Your task to perform on an android device: Add "razer naga" to the cart on costco.com Image 0: 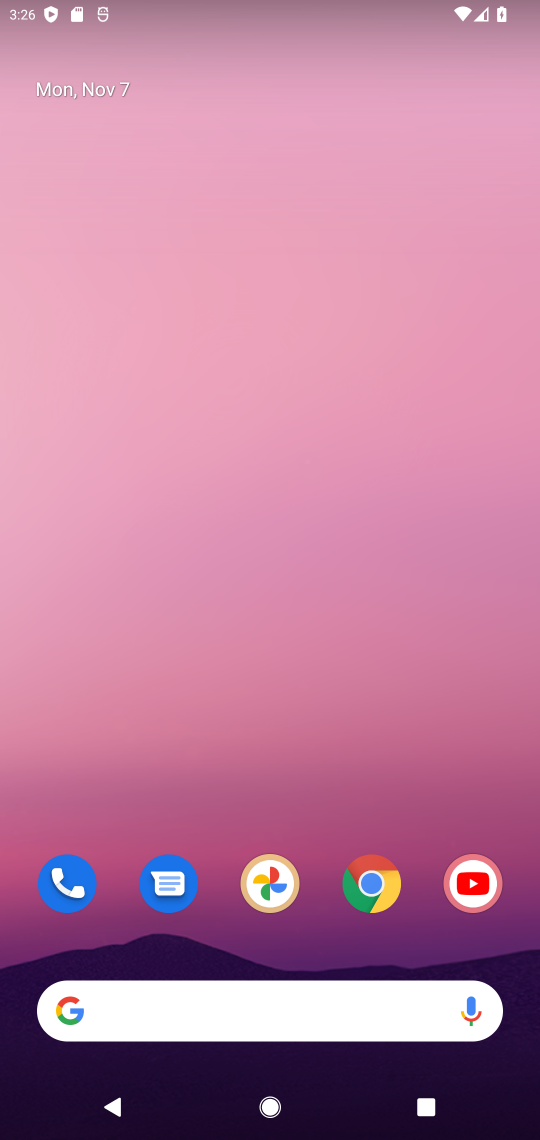
Step 0: click (368, 900)
Your task to perform on an android device: Add "razer naga" to the cart on costco.com Image 1: 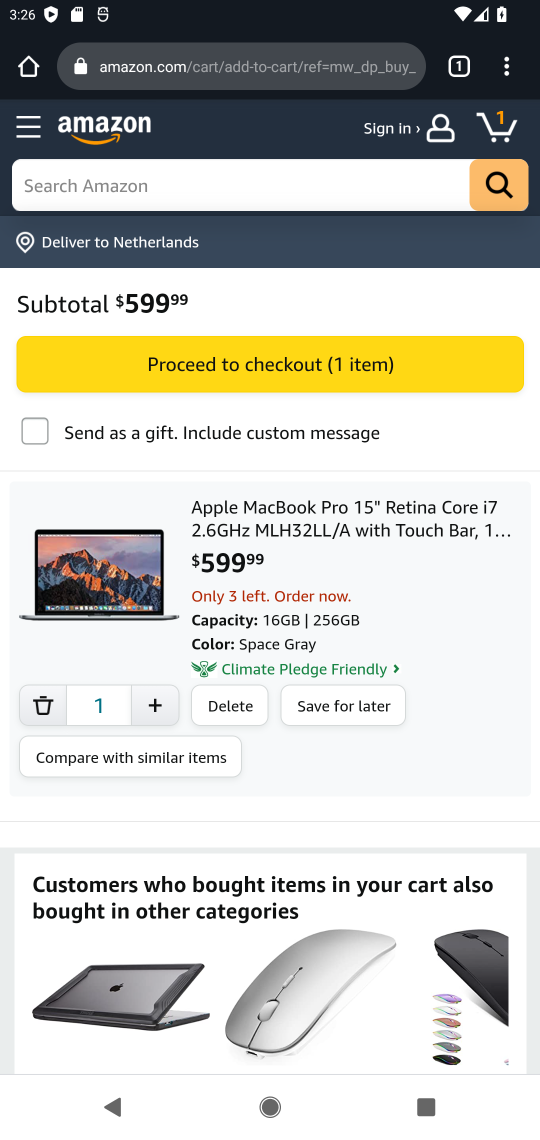
Step 1: click (269, 60)
Your task to perform on an android device: Add "razer naga" to the cart on costco.com Image 2: 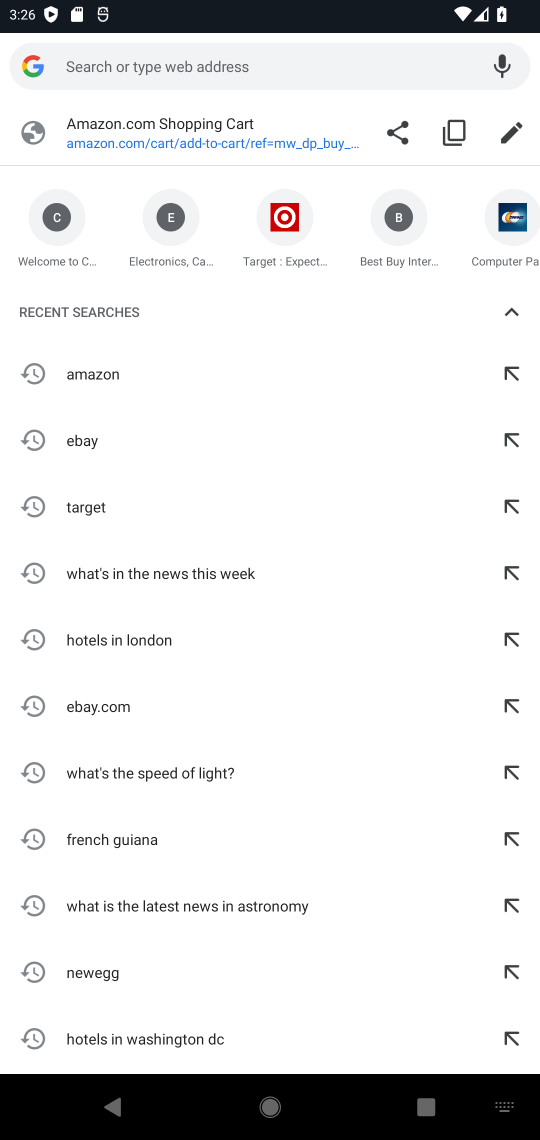
Step 2: drag from (144, 973) to (253, 797)
Your task to perform on an android device: Add "razer naga" to the cart on costco.com Image 3: 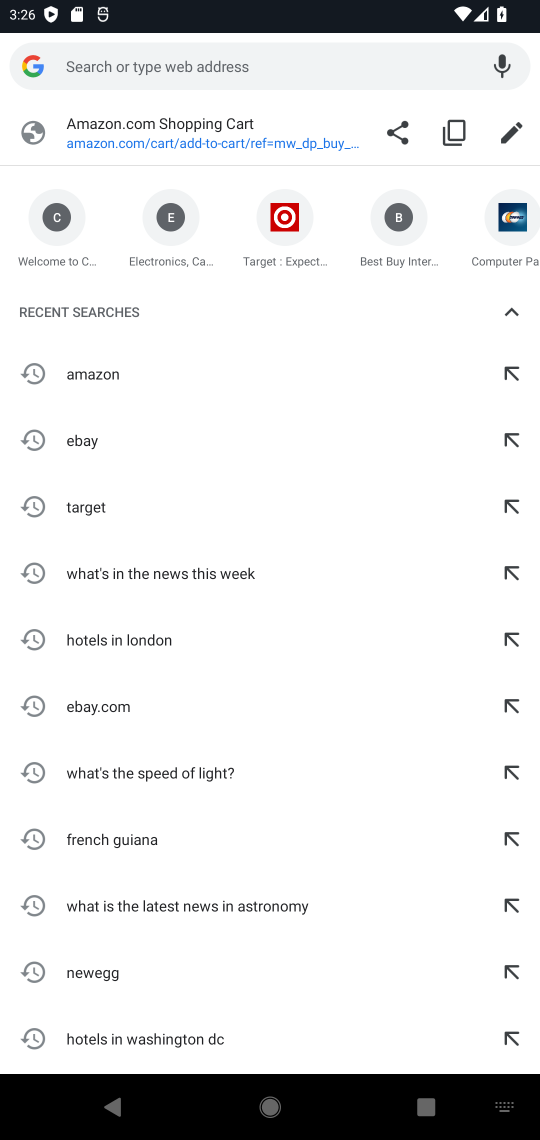
Step 3: click (186, 57)
Your task to perform on an android device: Add "razer naga" to the cart on costco.com Image 4: 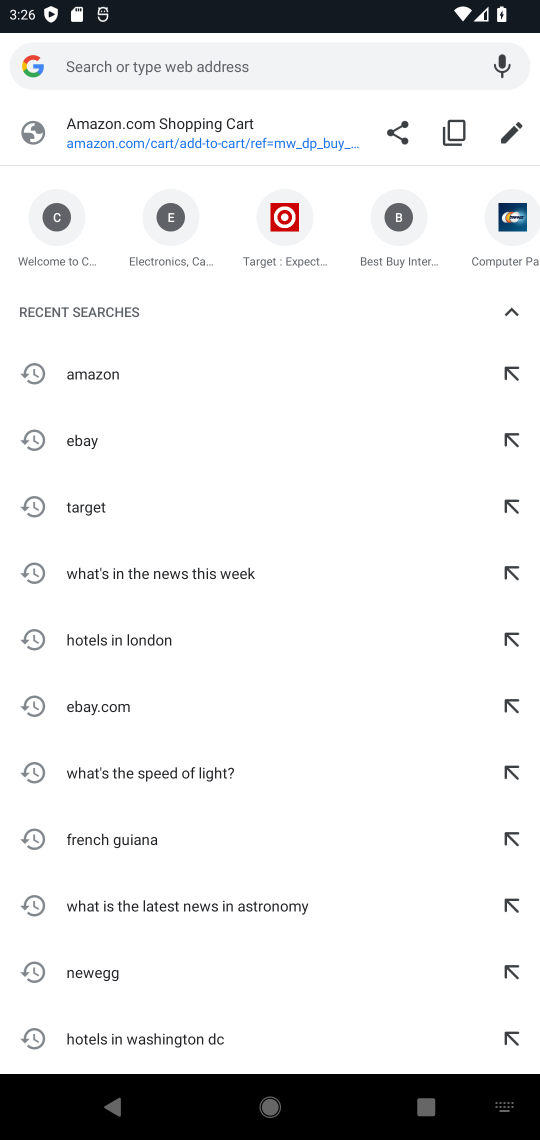
Step 4: type " costco"
Your task to perform on an android device: Add "razer naga" to the cart on costco.com Image 5: 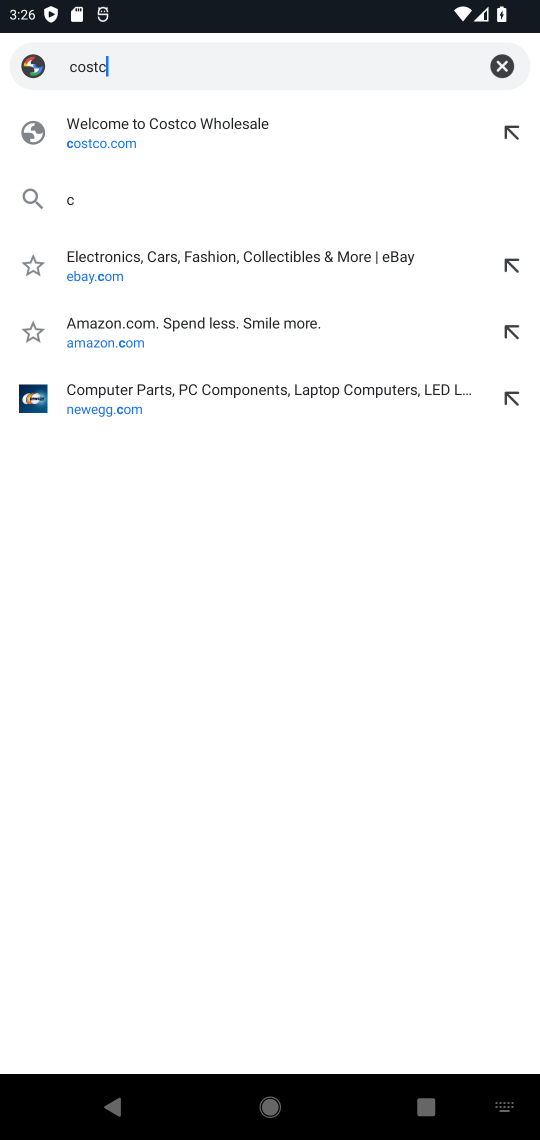
Step 5: press enter
Your task to perform on an android device: Add "razer naga" to the cart on costco.com Image 6: 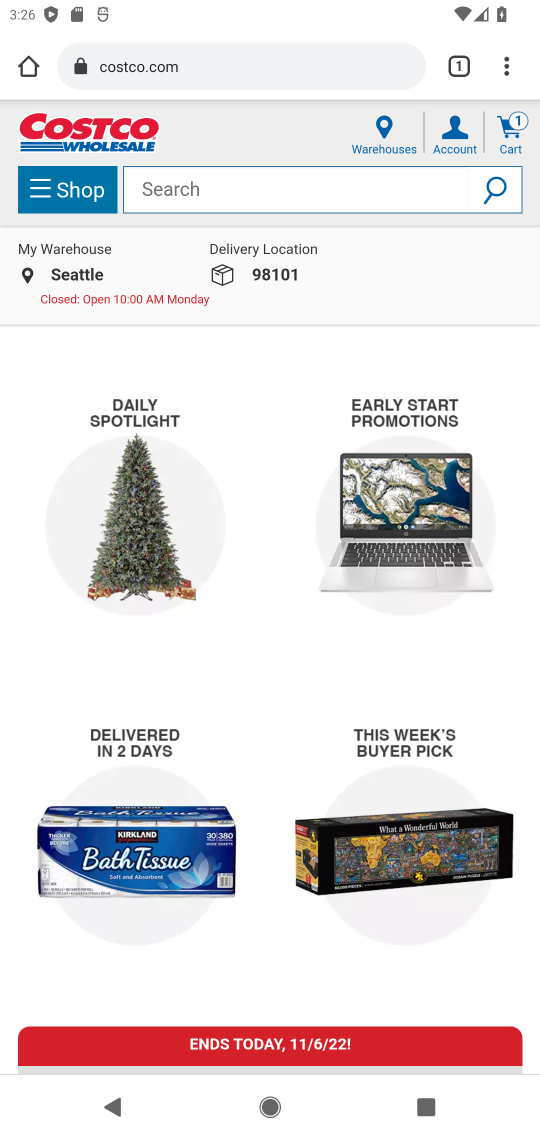
Step 6: click (233, 188)
Your task to perform on an android device: Add "razer naga" to the cart on costco.com Image 7: 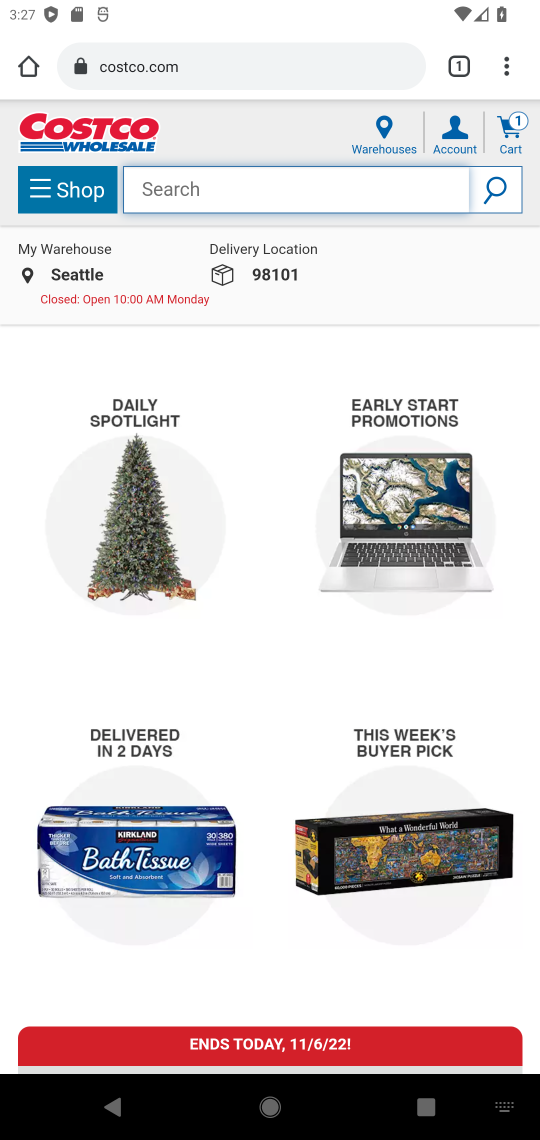
Step 7: type "razer naga"
Your task to perform on an android device: Add "razer naga" to the cart on costco.com Image 8: 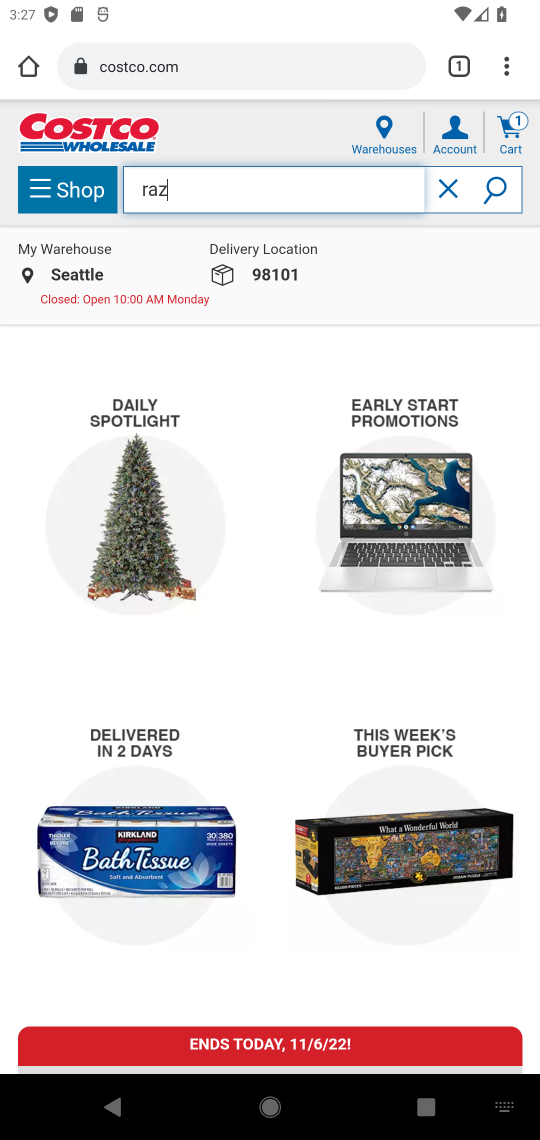
Step 8: press enter
Your task to perform on an android device: Add "razer naga" to the cart on costco.com Image 9: 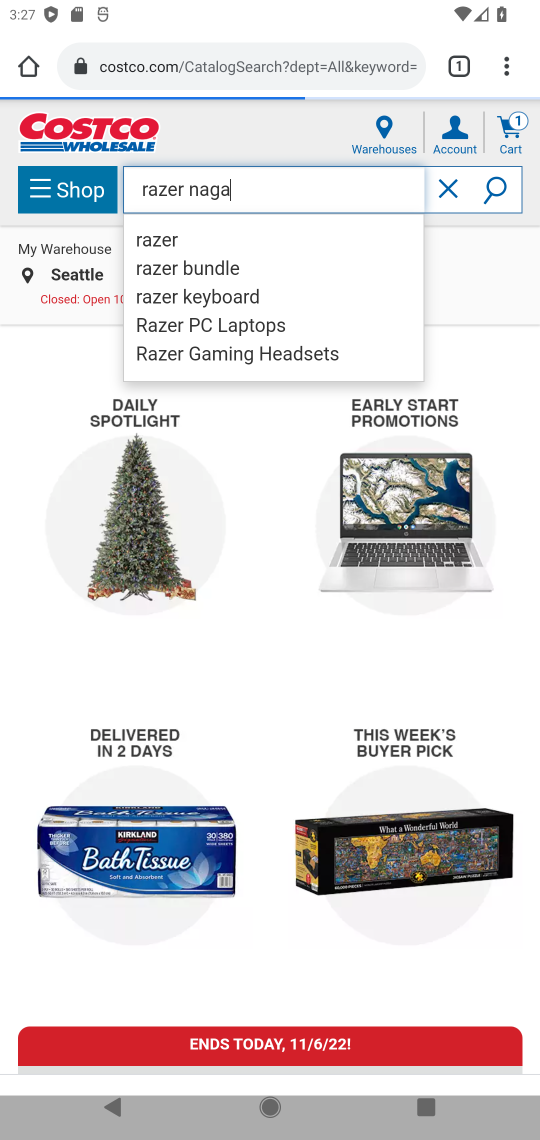
Step 9: press enter
Your task to perform on an android device: Add "razer naga" to the cart on costco.com Image 10: 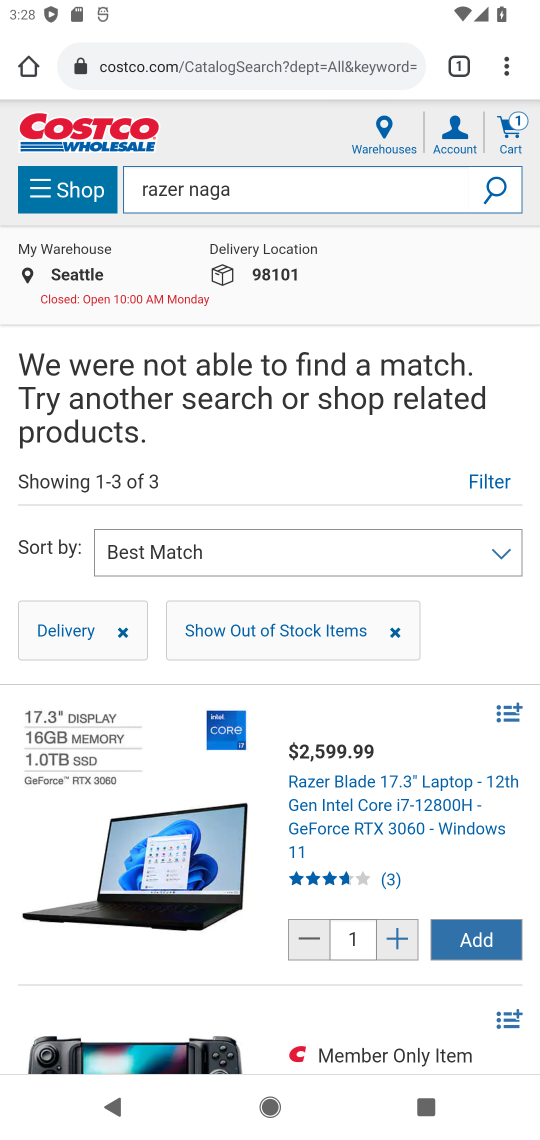
Step 10: task complete